Your task to perform on an android device: See recent photos Image 0: 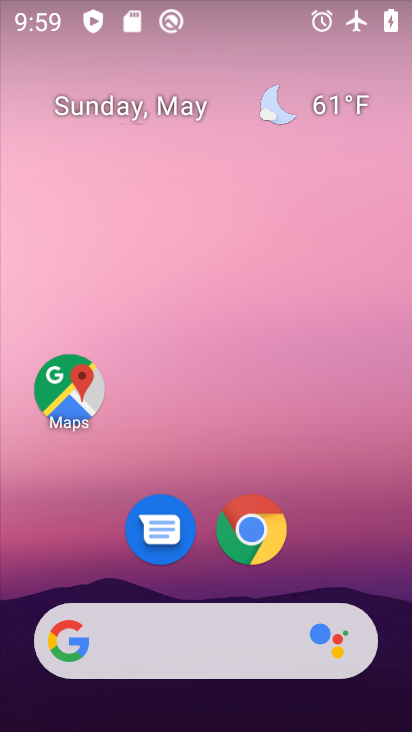
Step 0: drag from (176, 717) to (200, 196)
Your task to perform on an android device: See recent photos Image 1: 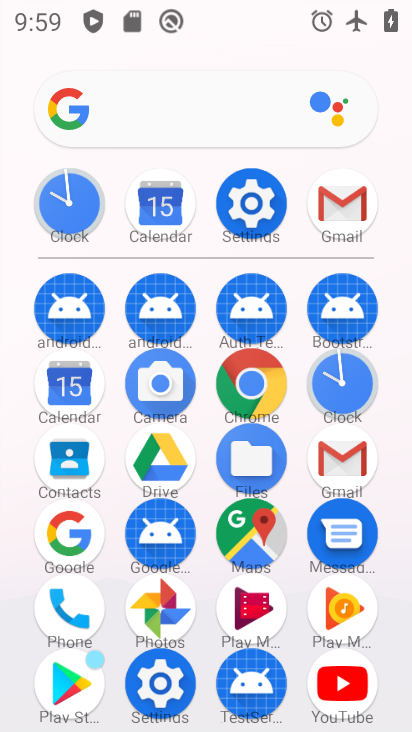
Step 1: click (164, 615)
Your task to perform on an android device: See recent photos Image 2: 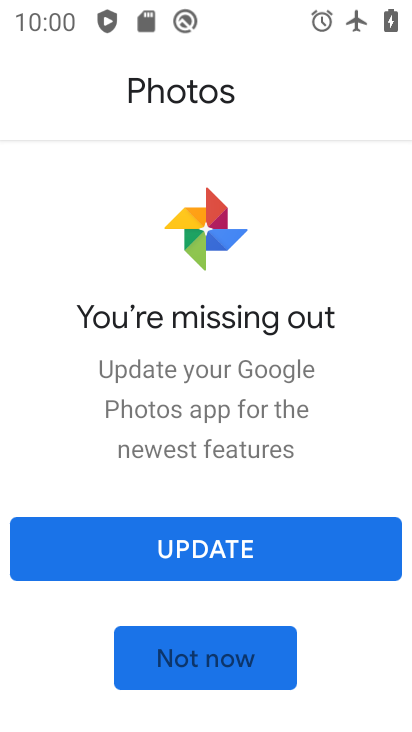
Step 2: task complete